Your task to perform on an android device: delete location history Image 0: 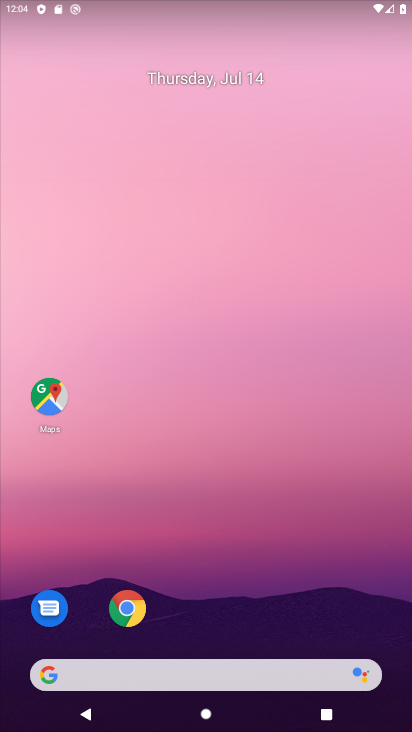
Step 0: drag from (16, 641) to (191, 307)
Your task to perform on an android device: delete location history Image 1: 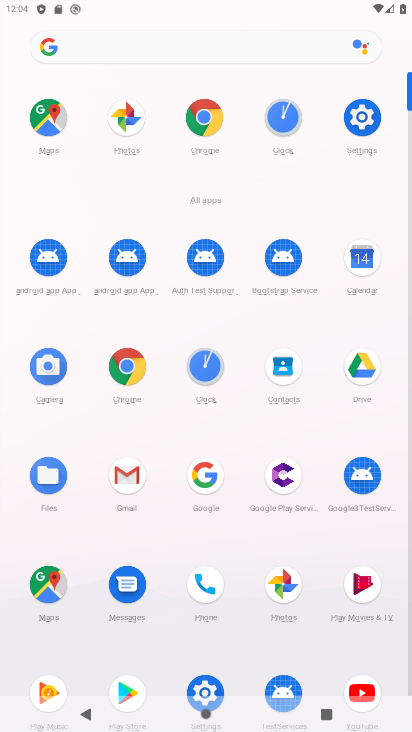
Step 1: click (367, 129)
Your task to perform on an android device: delete location history Image 2: 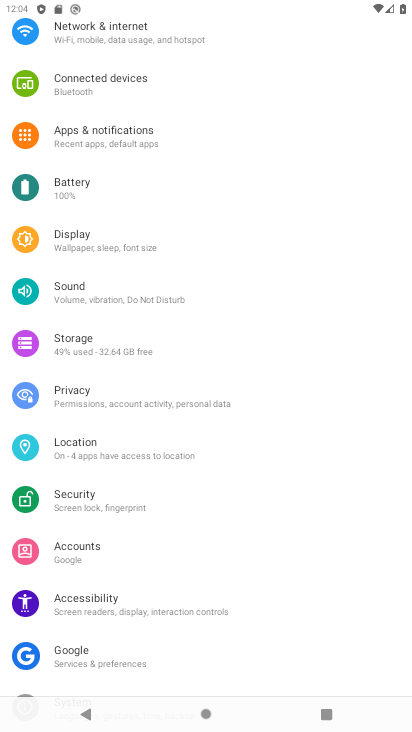
Step 2: click (109, 459)
Your task to perform on an android device: delete location history Image 3: 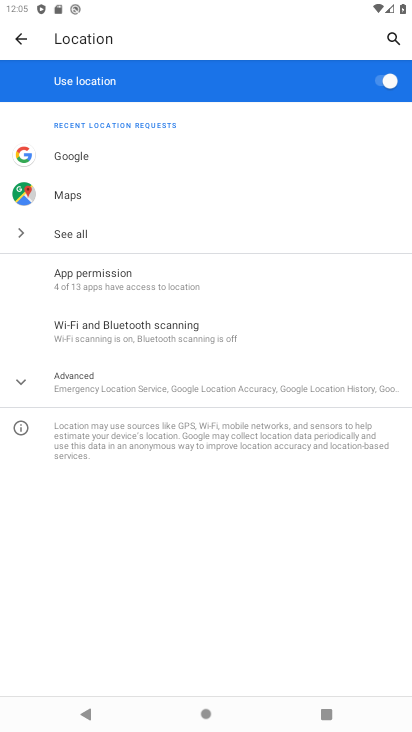
Step 3: click (142, 379)
Your task to perform on an android device: delete location history Image 4: 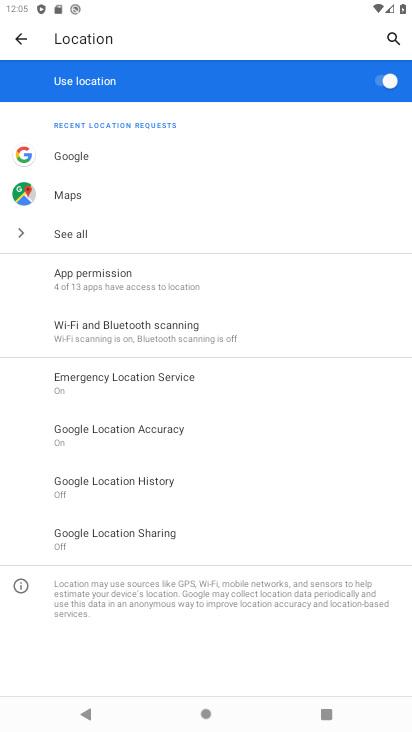
Step 4: click (127, 479)
Your task to perform on an android device: delete location history Image 5: 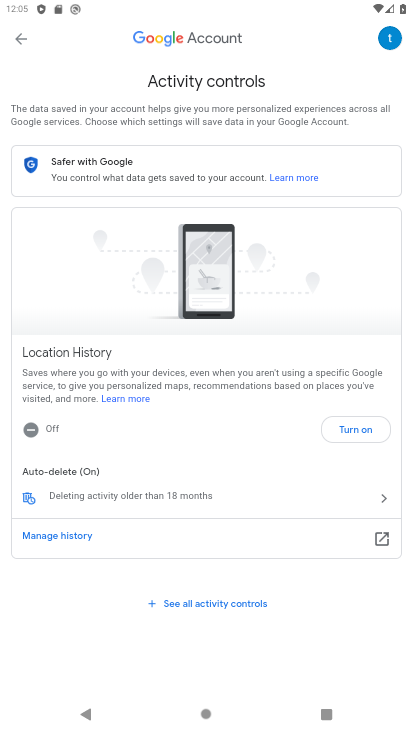
Step 5: click (84, 494)
Your task to perform on an android device: delete location history Image 6: 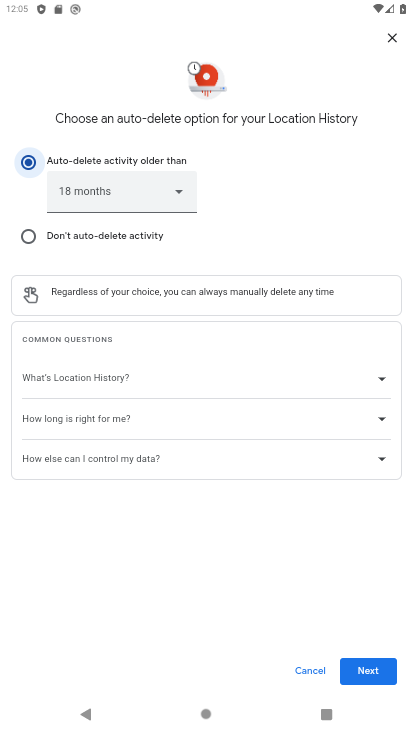
Step 6: click (378, 667)
Your task to perform on an android device: delete location history Image 7: 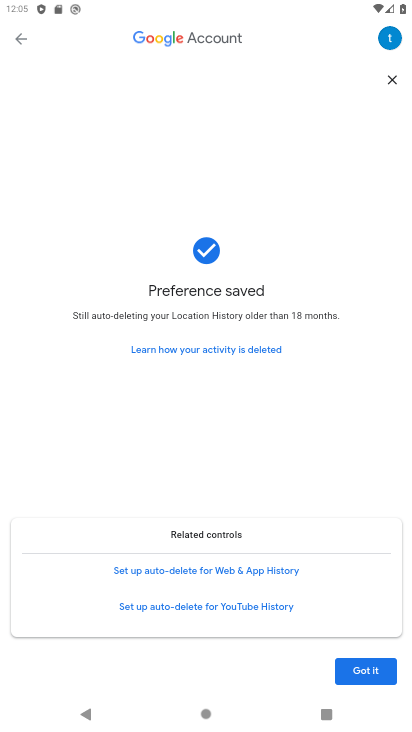
Step 7: click (349, 680)
Your task to perform on an android device: delete location history Image 8: 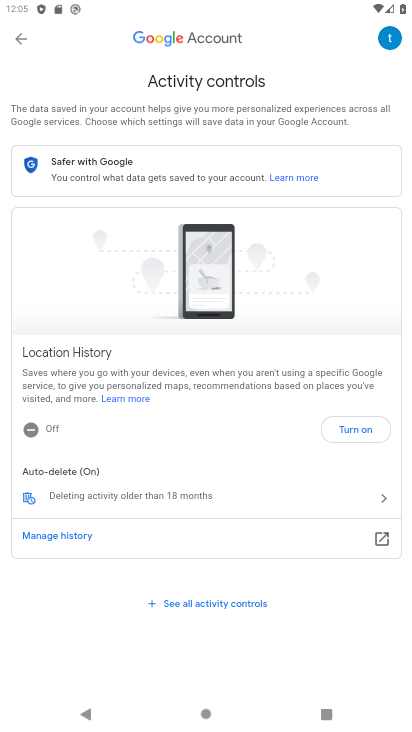
Step 8: task complete